Your task to perform on an android device: turn off notifications in google photos Image 0: 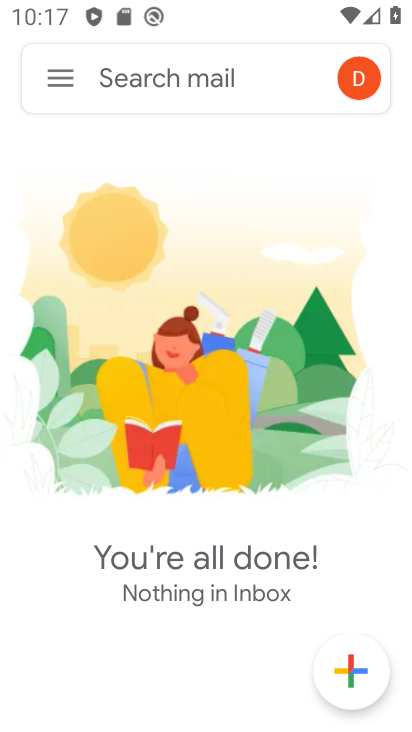
Step 0: click (54, 64)
Your task to perform on an android device: turn off notifications in google photos Image 1: 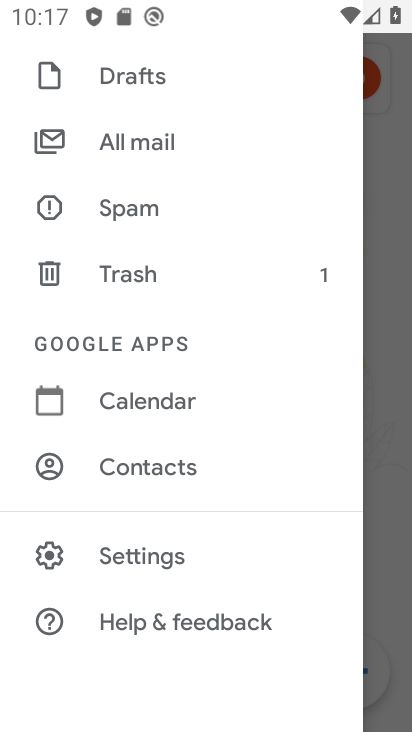
Step 1: click (139, 559)
Your task to perform on an android device: turn off notifications in google photos Image 2: 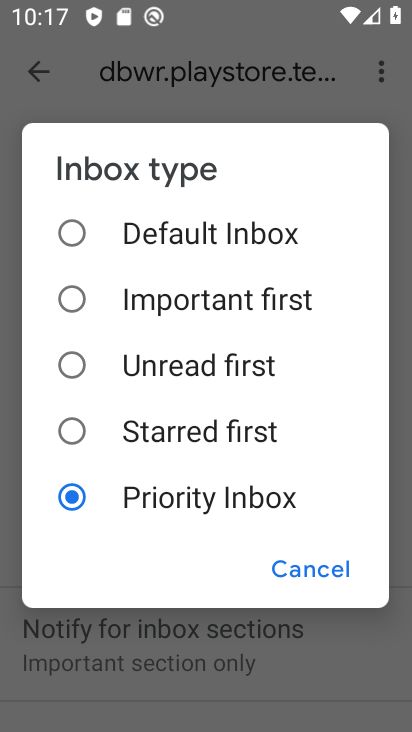
Step 2: click (296, 577)
Your task to perform on an android device: turn off notifications in google photos Image 3: 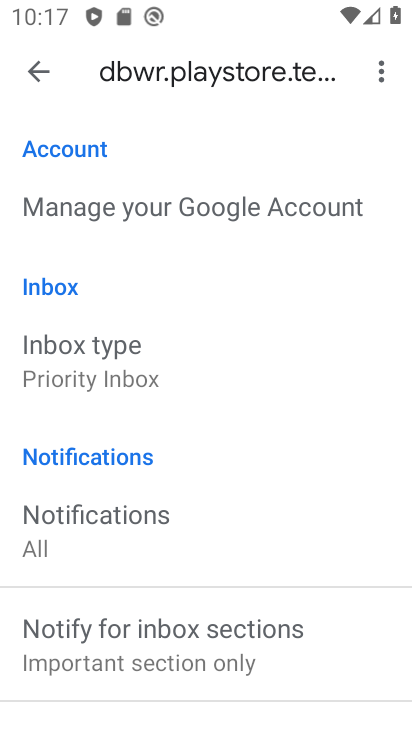
Step 3: drag from (170, 533) to (184, 181)
Your task to perform on an android device: turn off notifications in google photos Image 4: 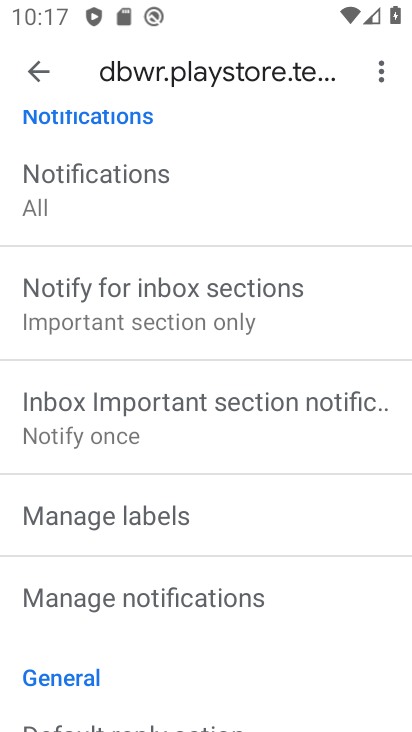
Step 4: click (107, 605)
Your task to perform on an android device: turn off notifications in google photos Image 5: 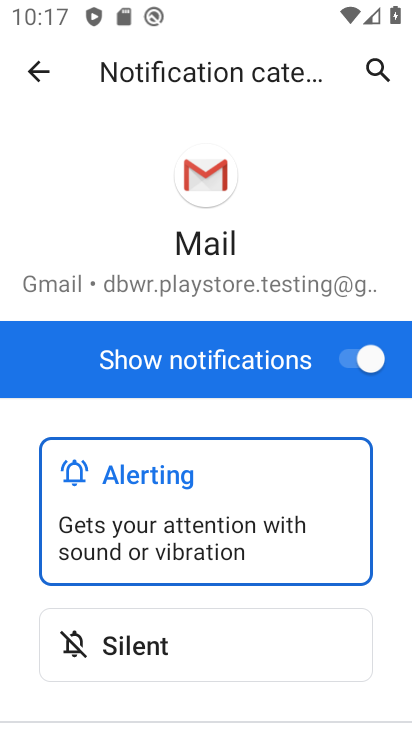
Step 5: drag from (106, 598) to (110, 453)
Your task to perform on an android device: turn off notifications in google photos Image 6: 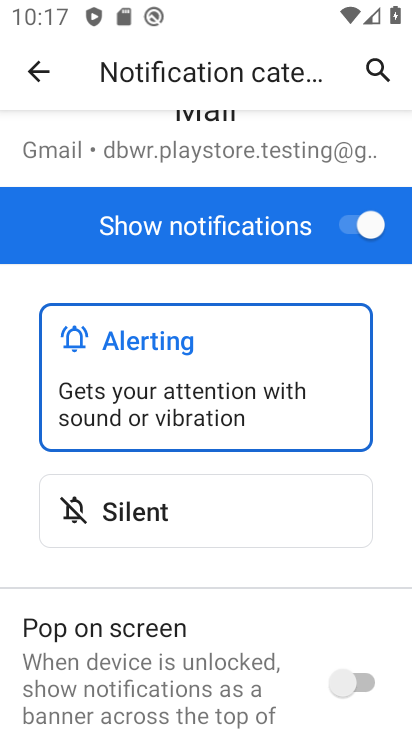
Step 6: click (363, 211)
Your task to perform on an android device: turn off notifications in google photos Image 7: 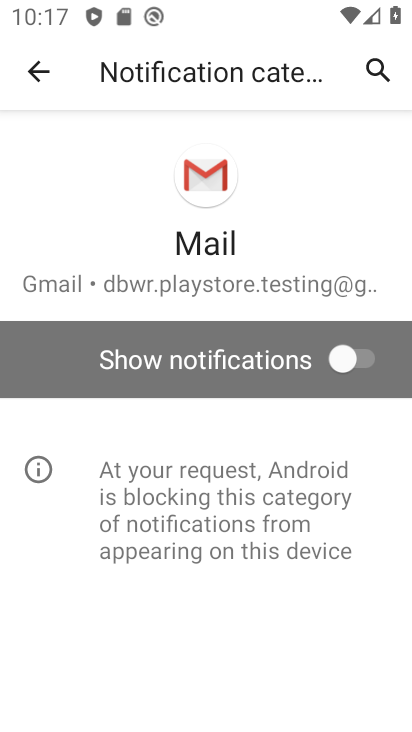
Step 7: task complete